Your task to perform on an android device: toggle wifi Image 0: 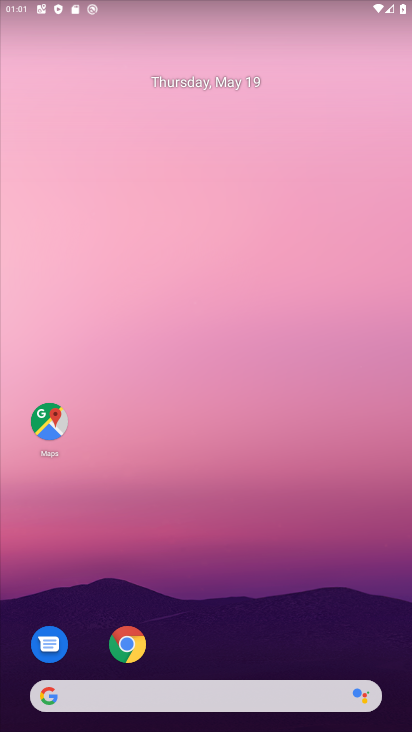
Step 0: drag from (312, 615) to (321, 16)
Your task to perform on an android device: toggle wifi Image 1: 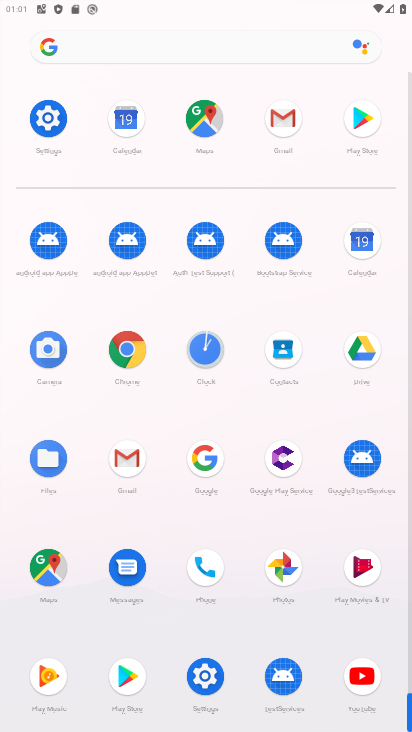
Step 1: click (43, 118)
Your task to perform on an android device: toggle wifi Image 2: 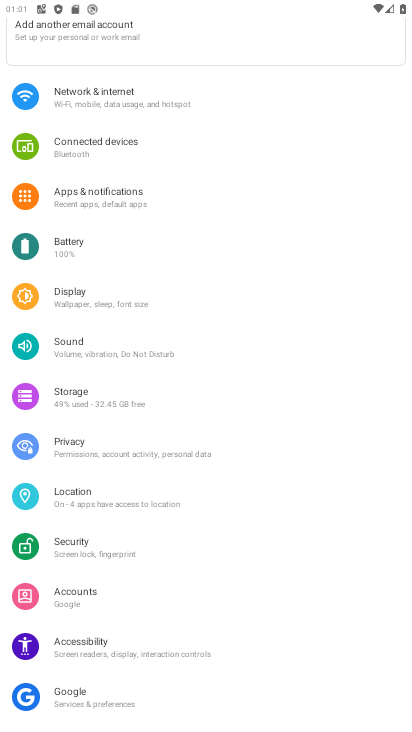
Step 2: click (314, 116)
Your task to perform on an android device: toggle wifi Image 3: 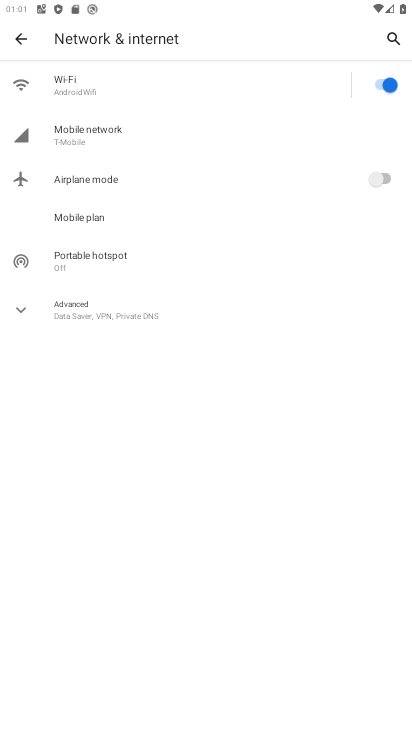
Step 3: click (395, 89)
Your task to perform on an android device: toggle wifi Image 4: 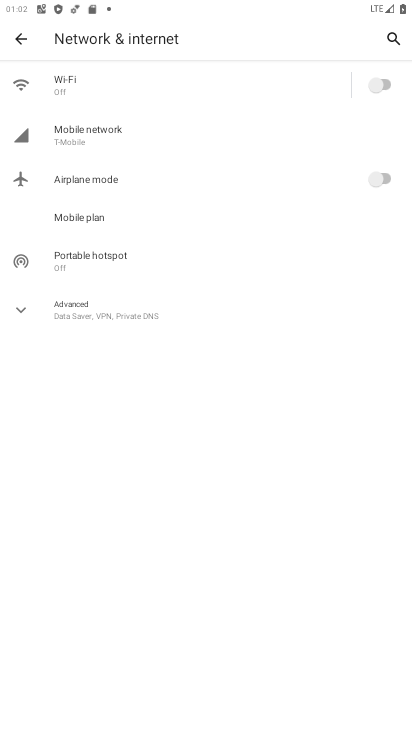
Step 4: click (390, 82)
Your task to perform on an android device: toggle wifi Image 5: 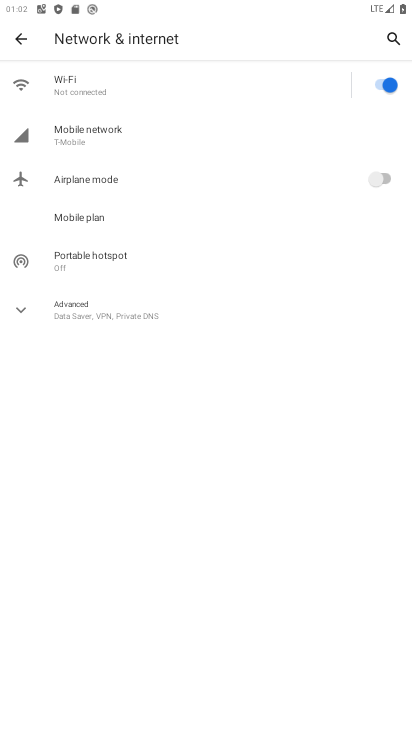
Step 5: task complete